Your task to perform on an android device: open a new tab in the chrome app Image 0: 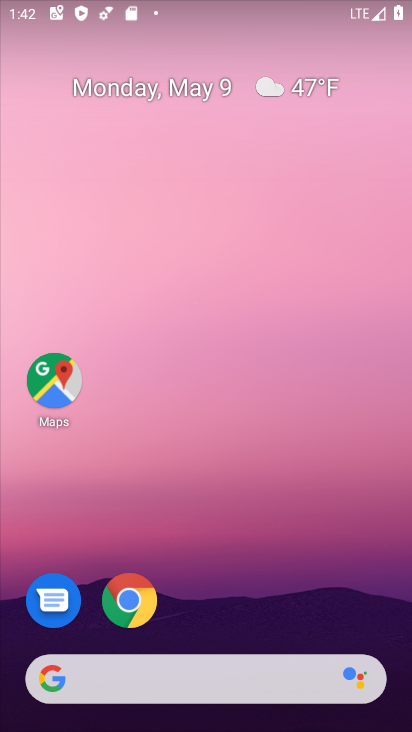
Step 0: click (122, 602)
Your task to perform on an android device: open a new tab in the chrome app Image 1: 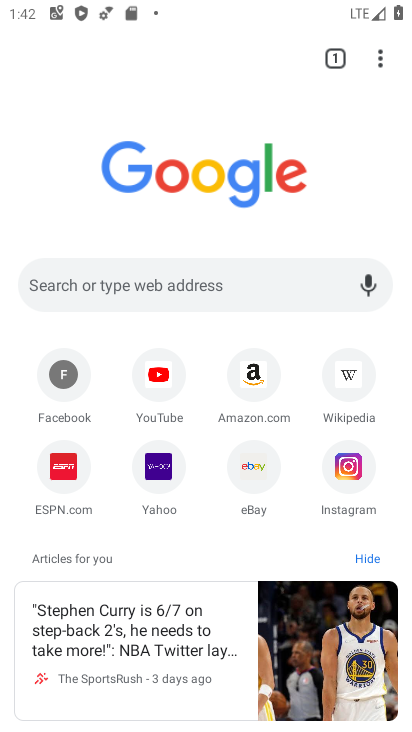
Step 1: click (376, 56)
Your task to perform on an android device: open a new tab in the chrome app Image 2: 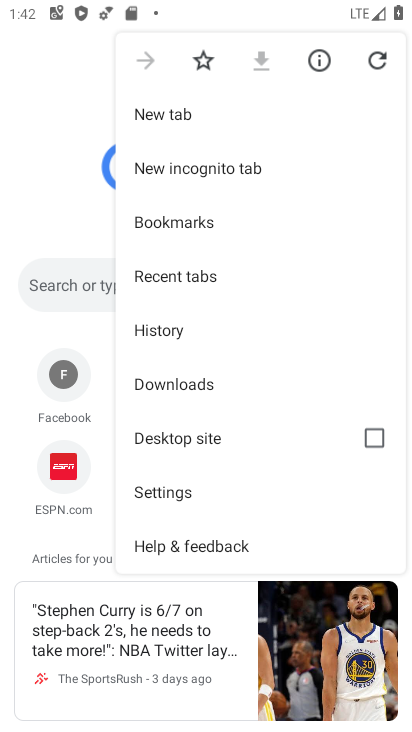
Step 2: click (192, 114)
Your task to perform on an android device: open a new tab in the chrome app Image 3: 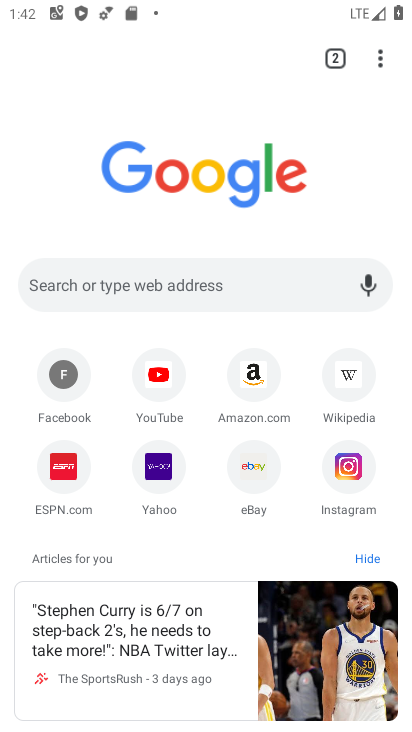
Step 3: task complete